Your task to perform on an android device: open sync settings in chrome Image 0: 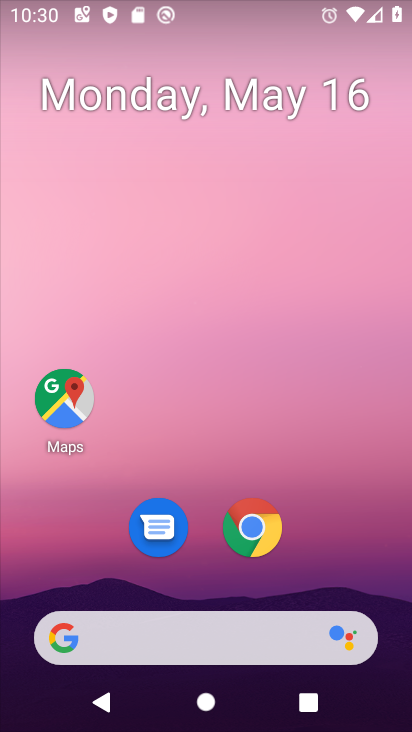
Step 0: click (258, 546)
Your task to perform on an android device: open sync settings in chrome Image 1: 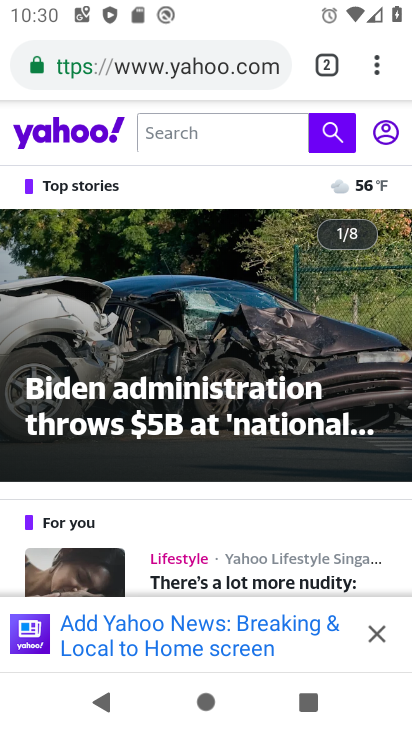
Step 1: click (374, 61)
Your task to perform on an android device: open sync settings in chrome Image 2: 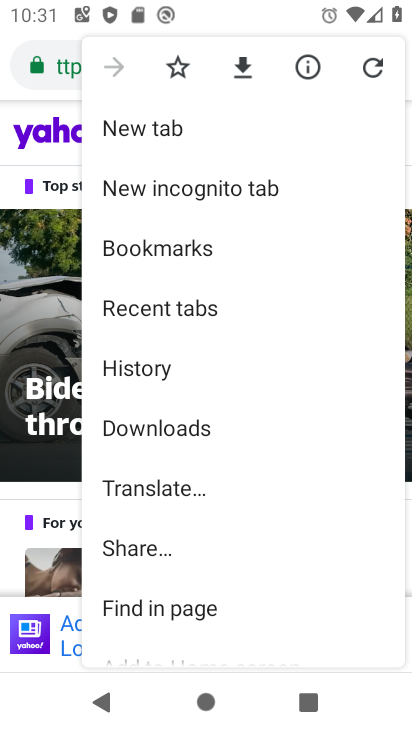
Step 2: drag from (244, 598) to (250, 249)
Your task to perform on an android device: open sync settings in chrome Image 3: 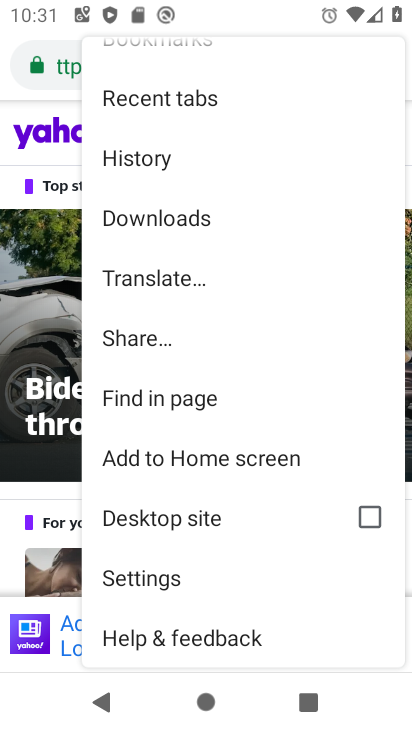
Step 3: drag from (232, 582) to (231, 216)
Your task to perform on an android device: open sync settings in chrome Image 4: 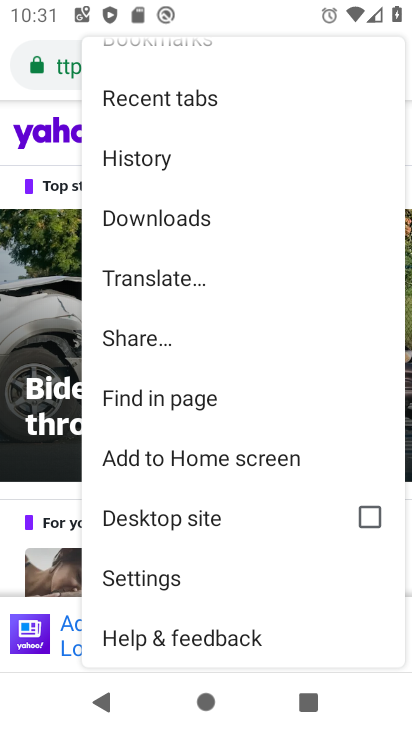
Step 4: click (148, 577)
Your task to perform on an android device: open sync settings in chrome Image 5: 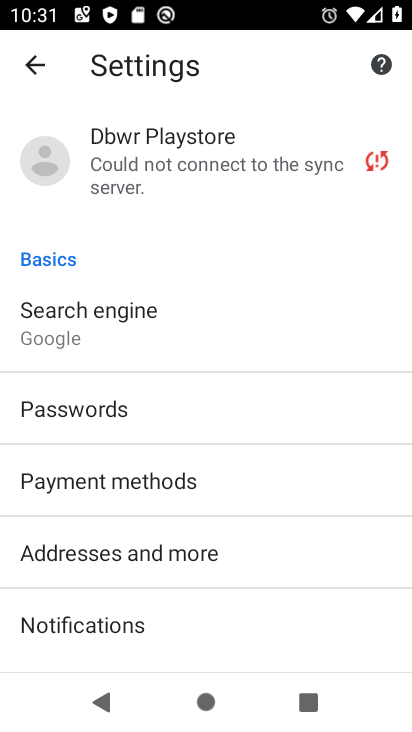
Step 5: click (168, 170)
Your task to perform on an android device: open sync settings in chrome Image 6: 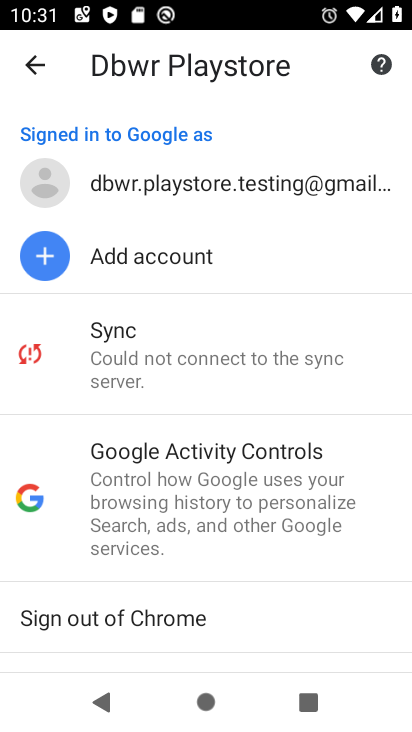
Step 6: click (141, 367)
Your task to perform on an android device: open sync settings in chrome Image 7: 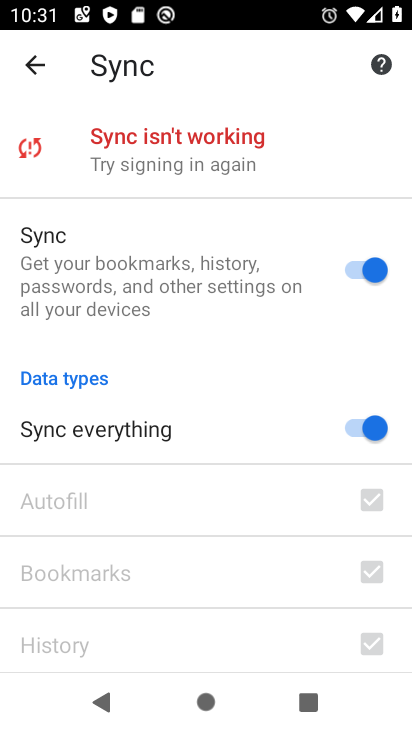
Step 7: task complete